Your task to perform on an android device: check the backup settings in the google photos Image 0: 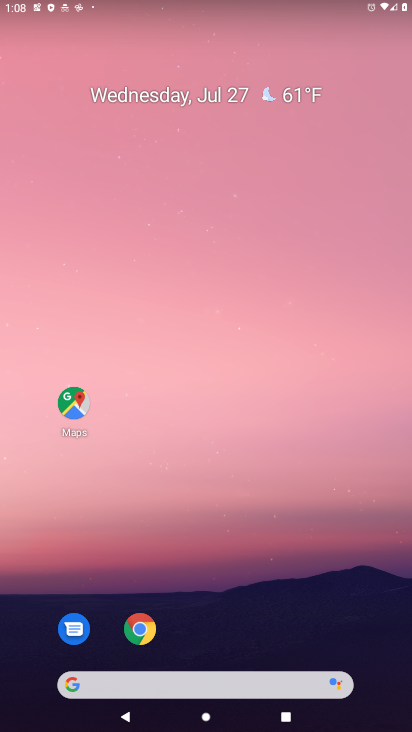
Step 0: drag from (277, 641) to (249, 194)
Your task to perform on an android device: check the backup settings in the google photos Image 1: 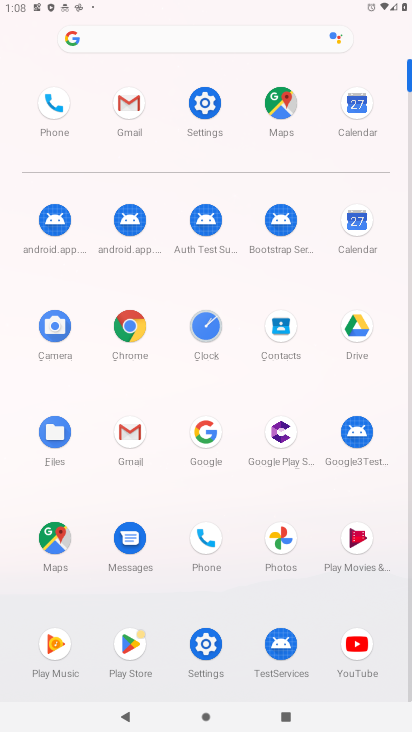
Step 1: click (273, 539)
Your task to perform on an android device: check the backup settings in the google photos Image 2: 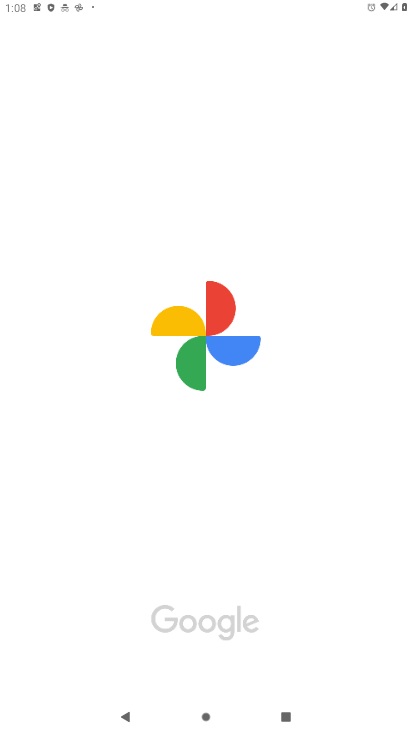
Step 2: task complete